Your task to perform on an android device: turn off notifications in google photos Image 0: 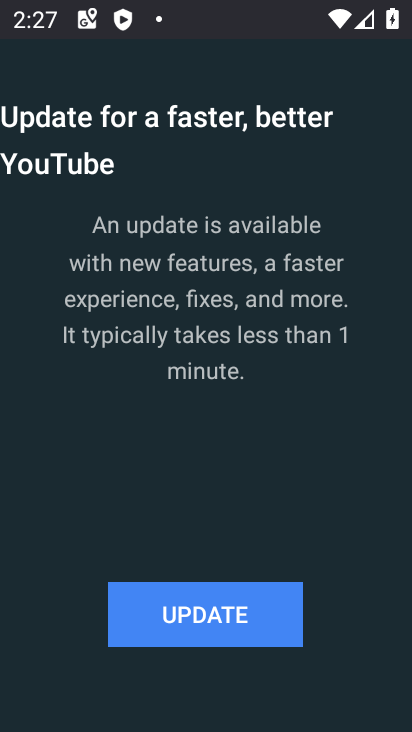
Step 0: press home button
Your task to perform on an android device: turn off notifications in google photos Image 1: 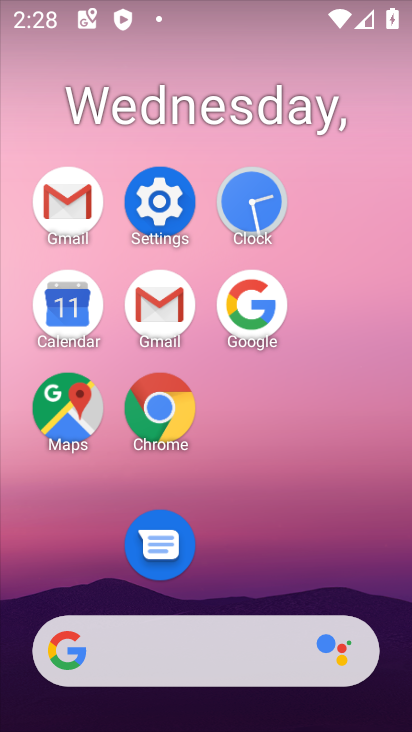
Step 1: drag from (275, 527) to (334, 77)
Your task to perform on an android device: turn off notifications in google photos Image 2: 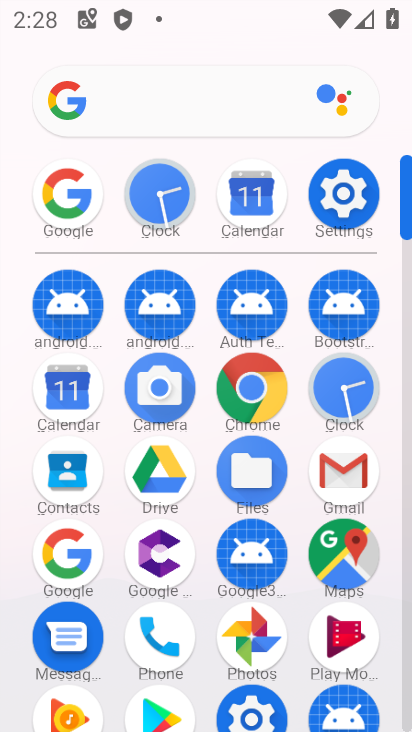
Step 2: drag from (240, 628) to (285, 237)
Your task to perform on an android device: turn off notifications in google photos Image 3: 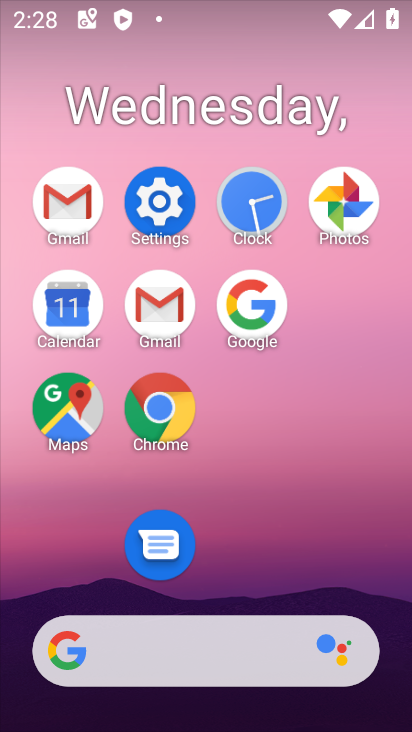
Step 3: click (341, 204)
Your task to perform on an android device: turn off notifications in google photos Image 4: 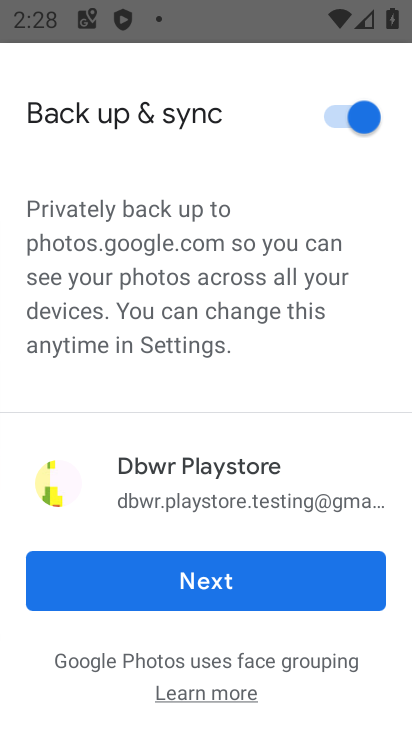
Step 4: click (246, 601)
Your task to perform on an android device: turn off notifications in google photos Image 5: 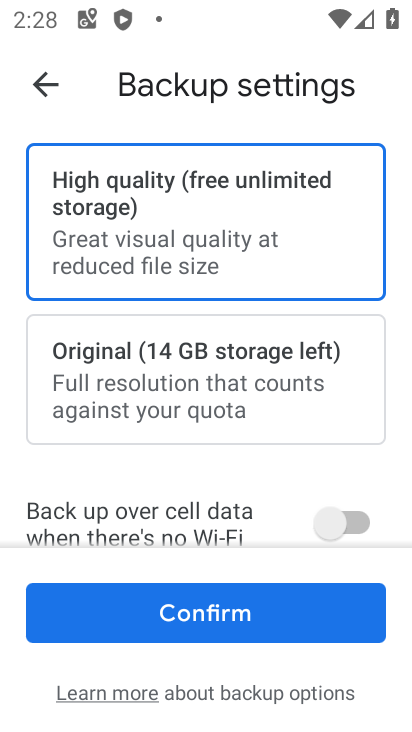
Step 5: click (246, 601)
Your task to perform on an android device: turn off notifications in google photos Image 6: 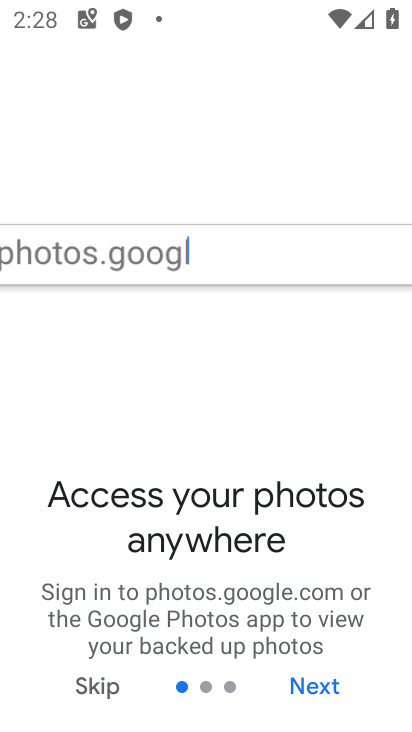
Step 6: click (300, 686)
Your task to perform on an android device: turn off notifications in google photos Image 7: 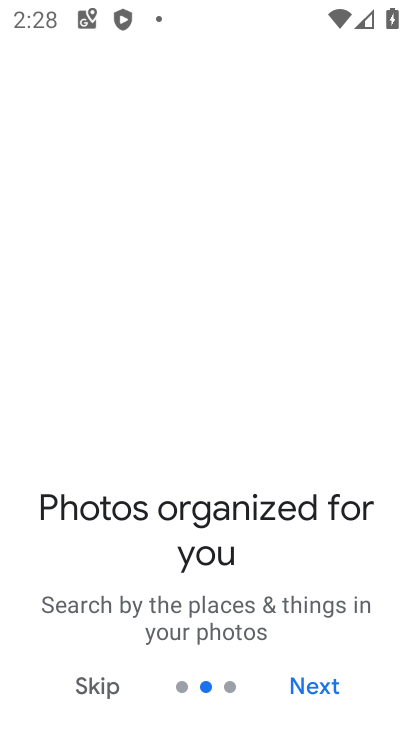
Step 7: click (300, 686)
Your task to perform on an android device: turn off notifications in google photos Image 8: 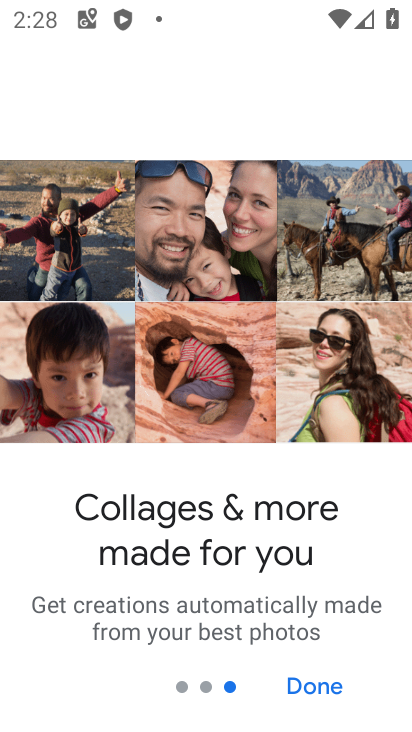
Step 8: click (300, 685)
Your task to perform on an android device: turn off notifications in google photos Image 9: 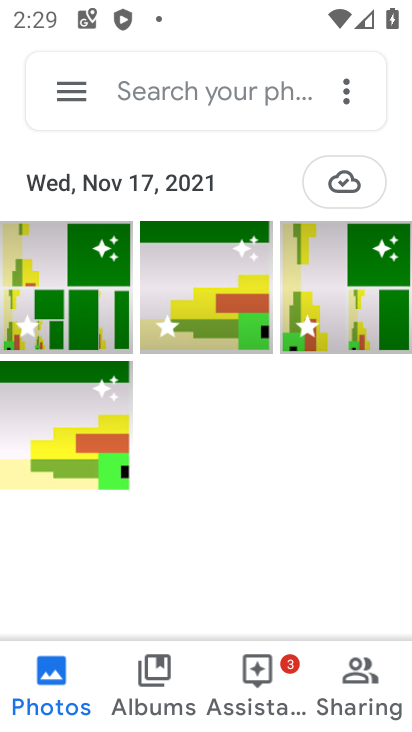
Step 9: click (72, 92)
Your task to perform on an android device: turn off notifications in google photos Image 10: 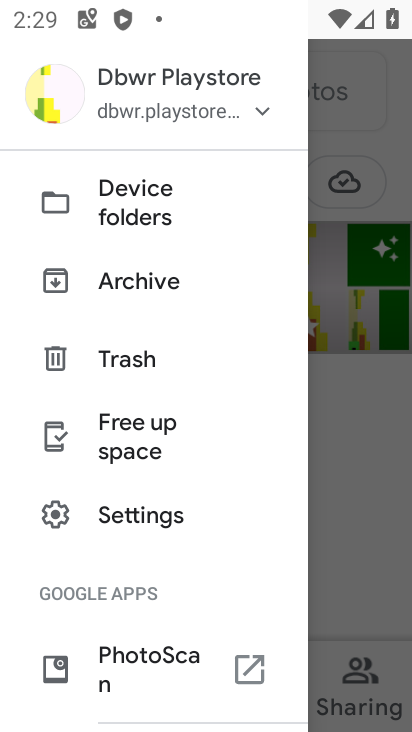
Step 10: drag from (207, 588) to (266, 188)
Your task to perform on an android device: turn off notifications in google photos Image 11: 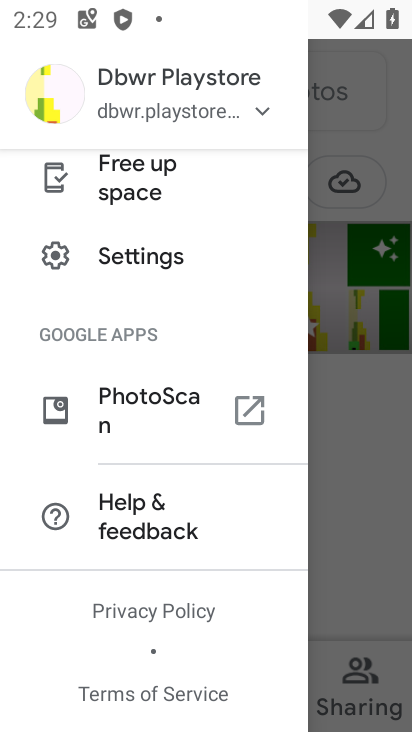
Step 11: click (207, 263)
Your task to perform on an android device: turn off notifications in google photos Image 12: 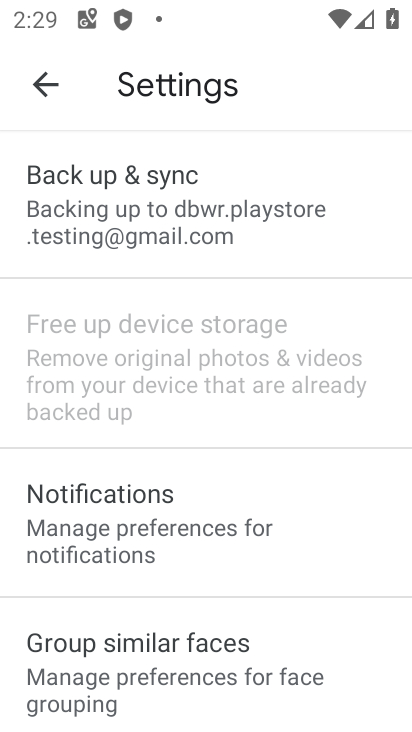
Step 12: click (305, 536)
Your task to perform on an android device: turn off notifications in google photos Image 13: 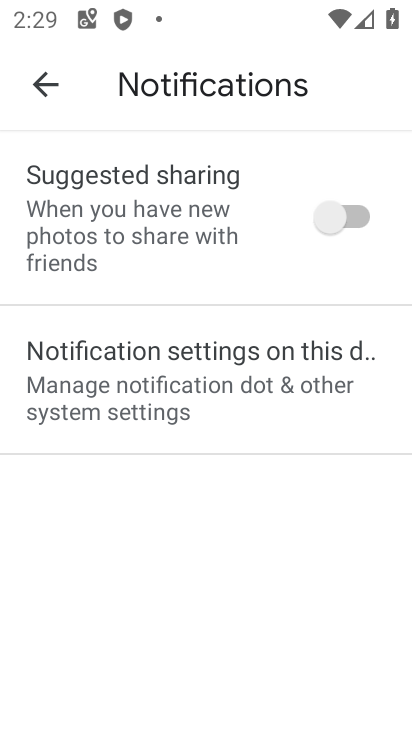
Step 13: click (317, 387)
Your task to perform on an android device: turn off notifications in google photos Image 14: 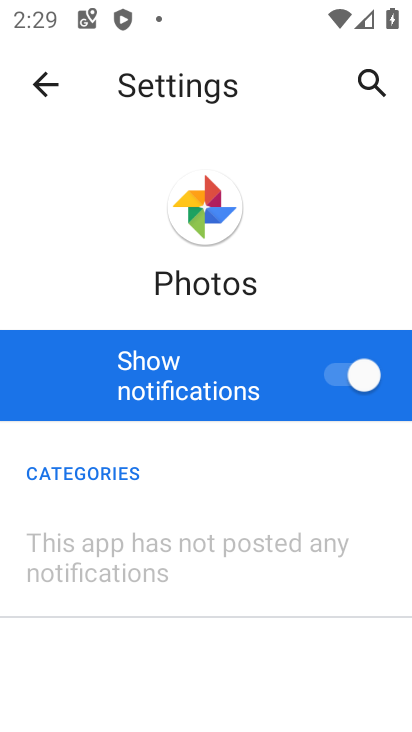
Step 14: click (383, 363)
Your task to perform on an android device: turn off notifications in google photos Image 15: 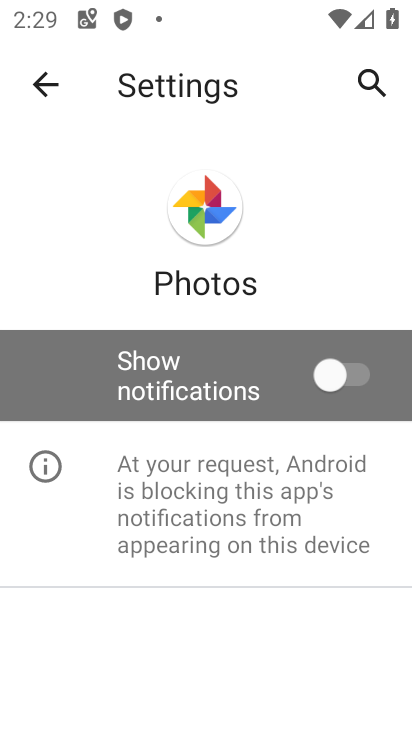
Step 15: task complete